Your task to perform on an android device: Is it going to rain today? Image 0: 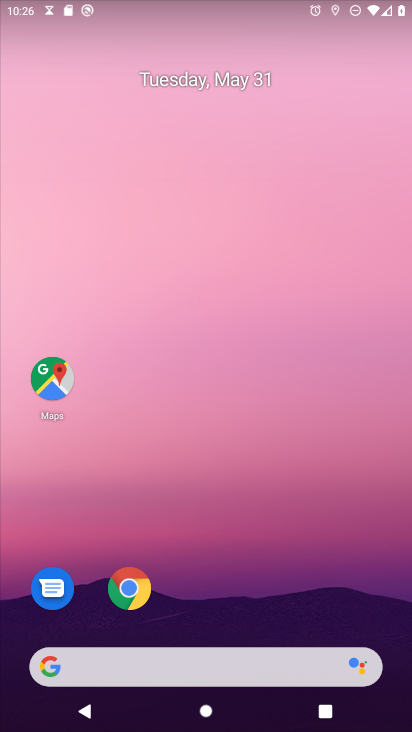
Step 0: drag from (270, 543) to (218, 99)
Your task to perform on an android device: Is it going to rain today? Image 1: 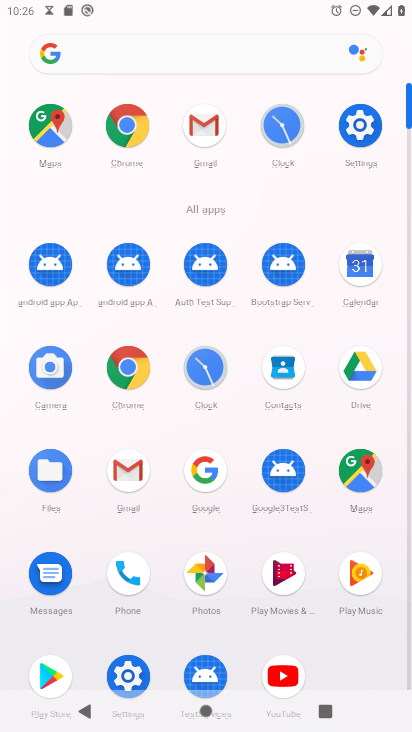
Step 1: click (202, 470)
Your task to perform on an android device: Is it going to rain today? Image 2: 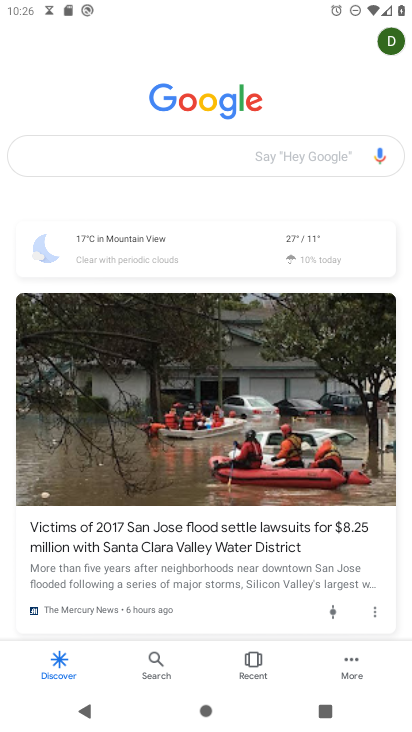
Step 2: click (139, 240)
Your task to perform on an android device: Is it going to rain today? Image 3: 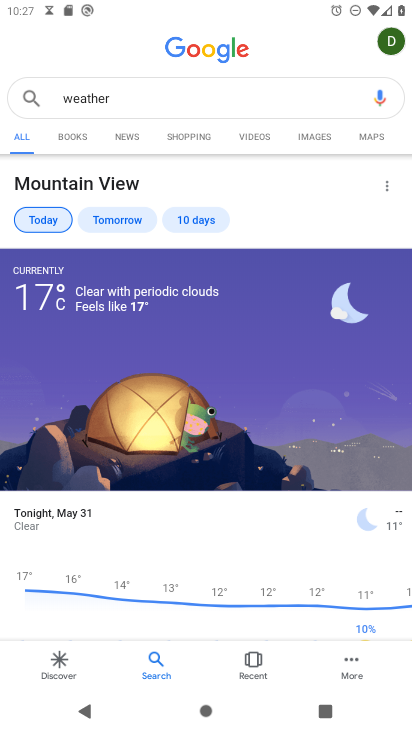
Step 3: task complete